Your task to perform on an android device: empty trash in the gmail app Image 0: 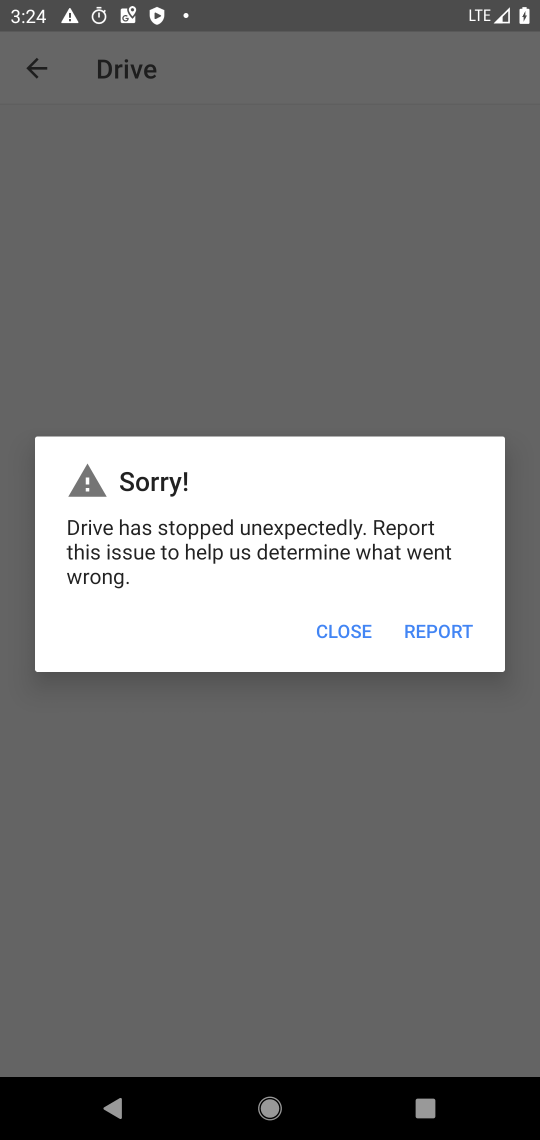
Step 0: press home button
Your task to perform on an android device: empty trash in the gmail app Image 1: 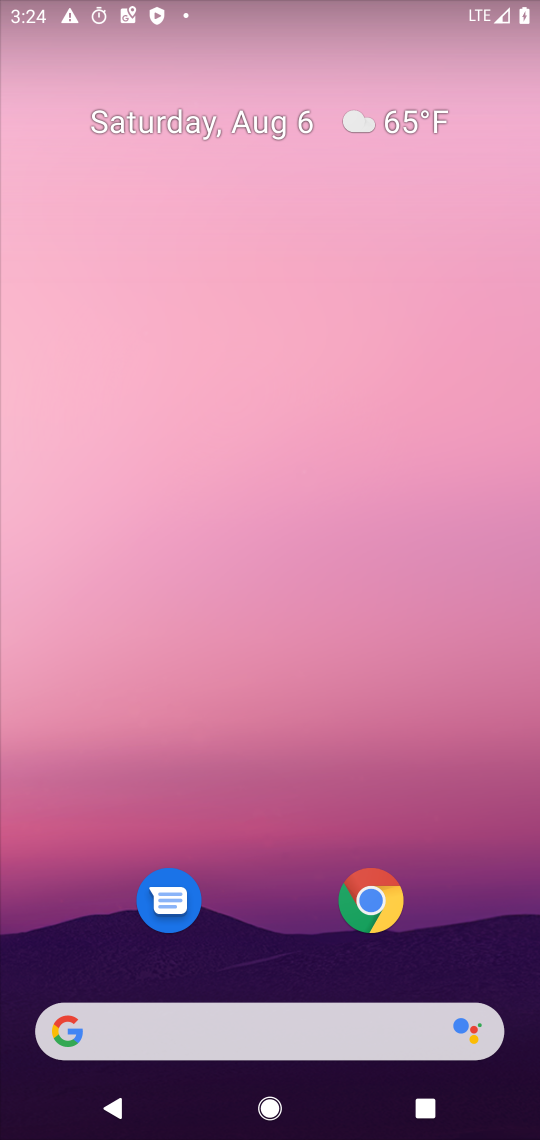
Step 1: drag from (261, 912) to (264, 2)
Your task to perform on an android device: empty trash in the gmail app Image 2: 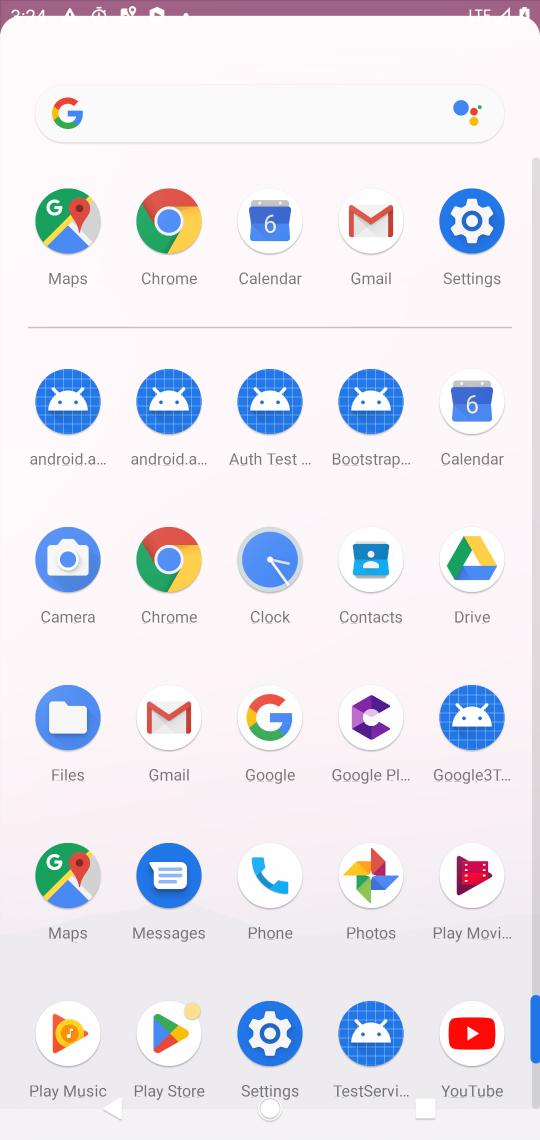
Step 2: click (369, 238)
Your task to perform on an android device: empty trash in the gmail app Image 3: 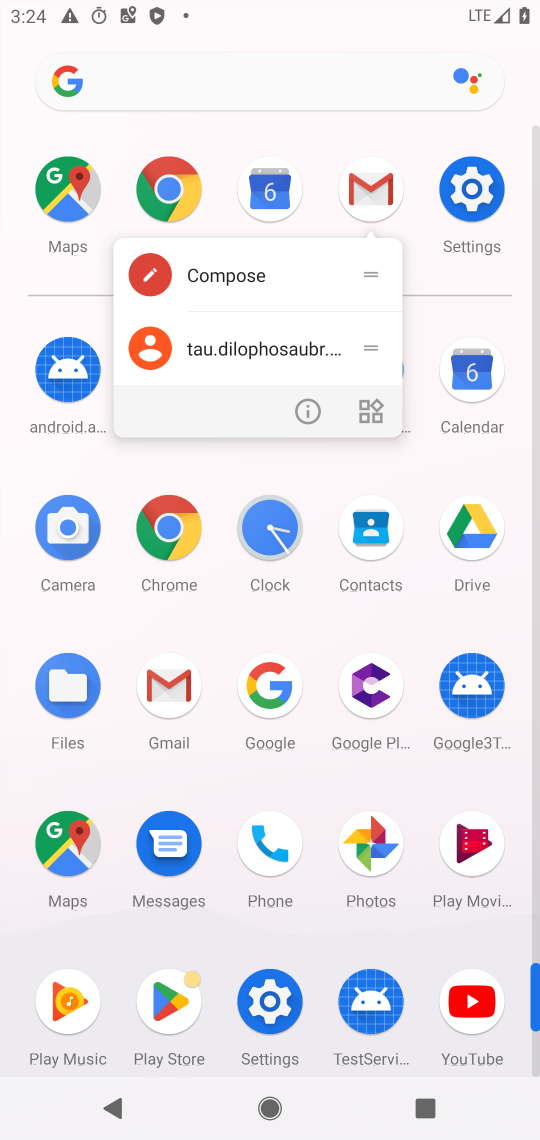
Step 3: click (371, 185)
Your task to perform on an android device: empty trash in the gmail app Image 4: 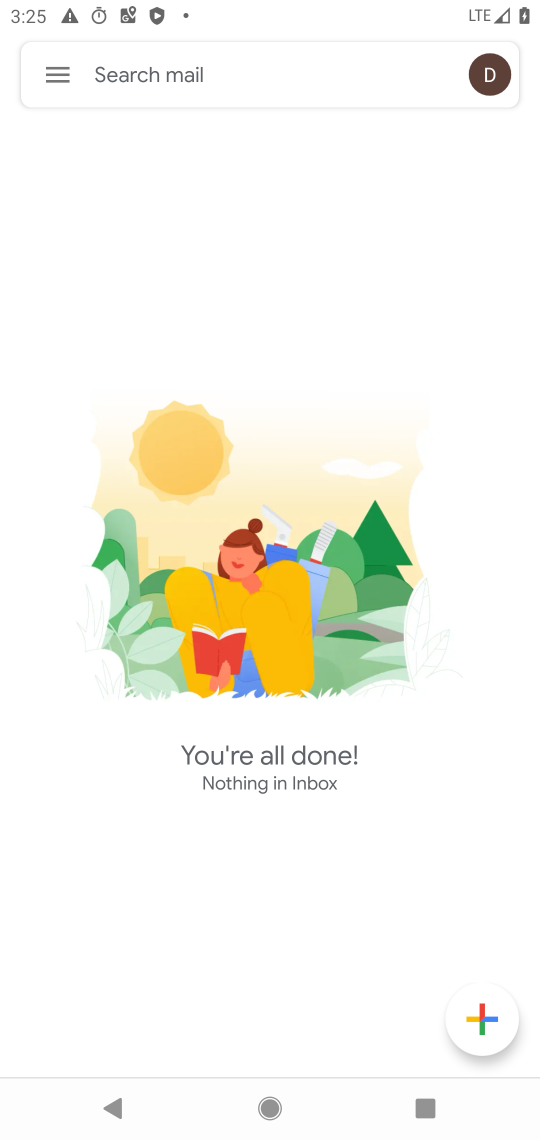
Step 4: click (58, 87)
Your task to perform on an android device: empty trash in the gmail app Image 5: 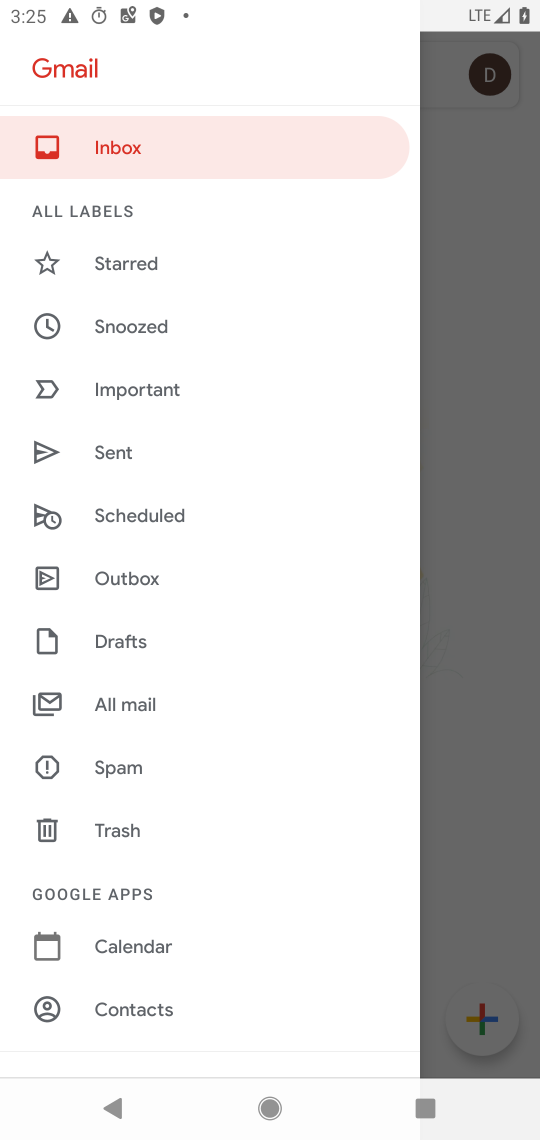
Step 5: click (127, 832)
Your task to perform on an android device: empty trash in the gmail app Image 6: 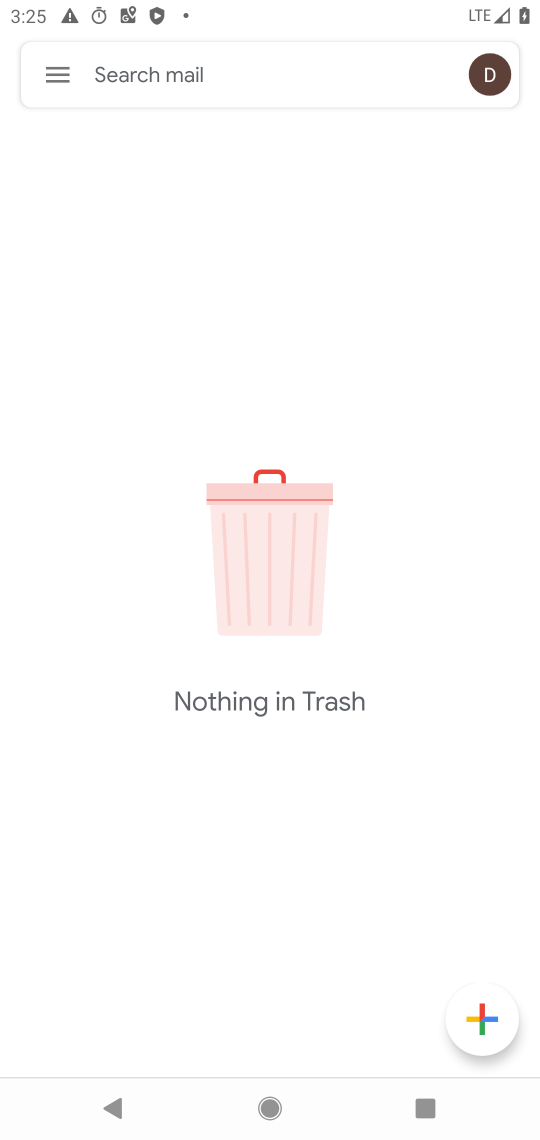
Step 6: task complete